Your task to perform on an android device: Open calendar and show me the third week of next month Image 0: 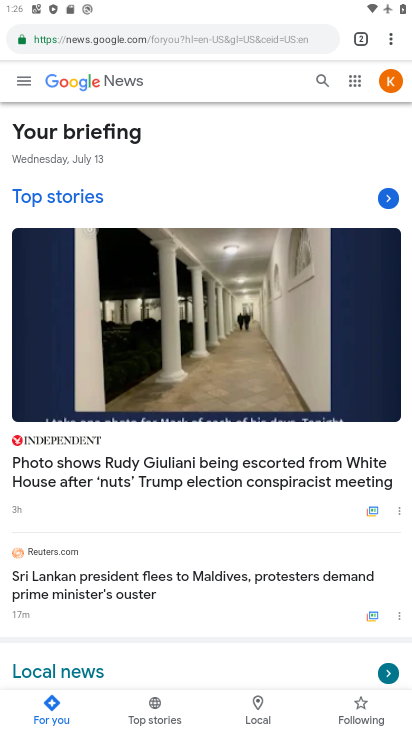
Step 0: press home button
Your task to perform on an android device: Open calendar and show me the third week of next month Image 1: 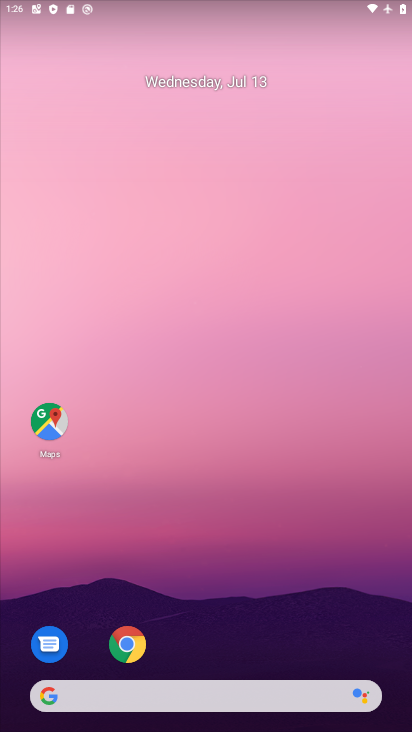
Step 1: drag from (256, 594) to (185, 56)
Your task to perform on an android device: Open calendar and show me the third week of next month Image 2: 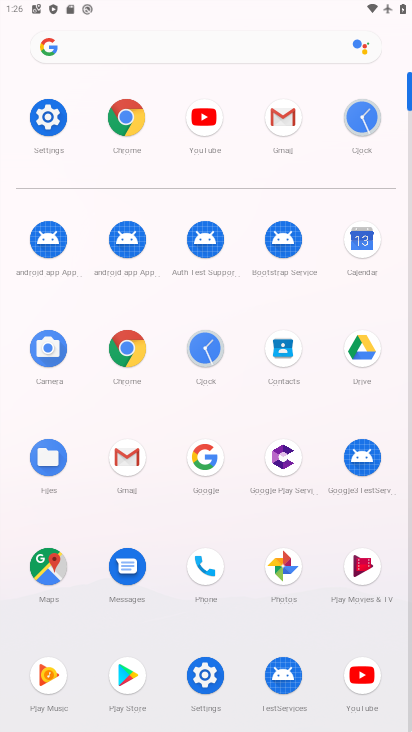
Step 2: click (372, 241)
Your task to perform on an android device: Open calendar and show me the third week of next month Image 3: 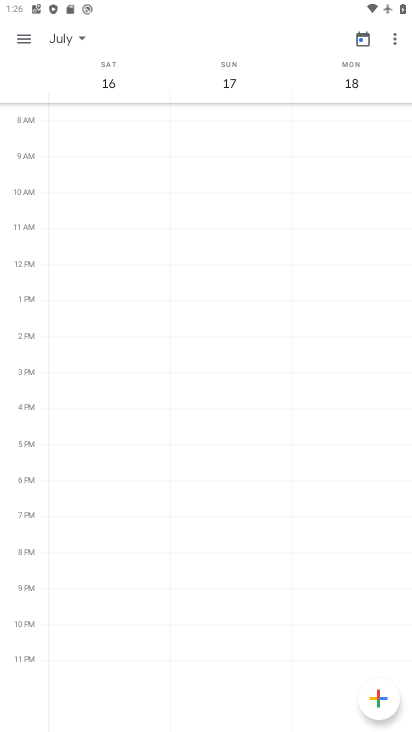
Step 3: click (58, 35)
Your task to perform on an android device: Open calendar and show me the third week of next month Image 4: 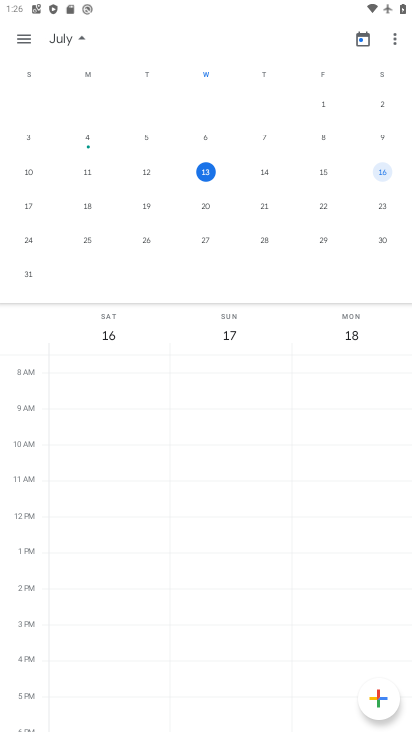
Step 4: drag from (337, 229) to (23, 176)
Your task to perform on an android device: Open calendar and show me the third week of next month Image 5: 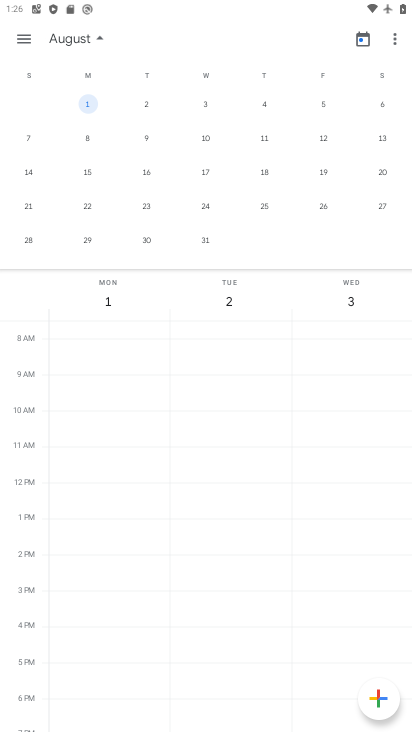
Step 5: click (150, 170)
Your task to perform on an android device: Open calendar and show me the third week of next month Image 6: 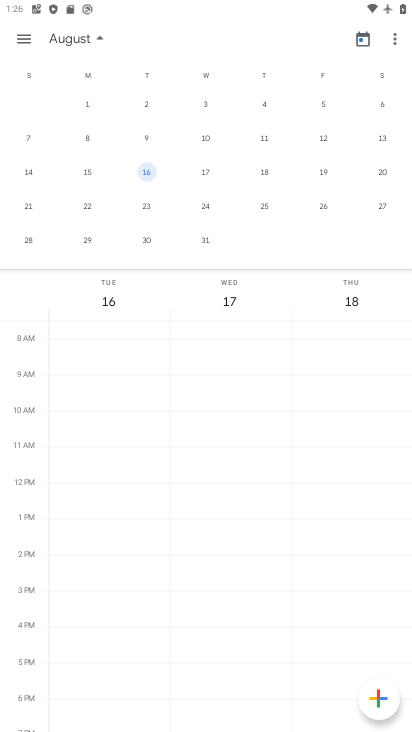
Step 6: click (22, 37)
Your task to perform on an android device: Open calendar and show me the third week of next month Image 7: 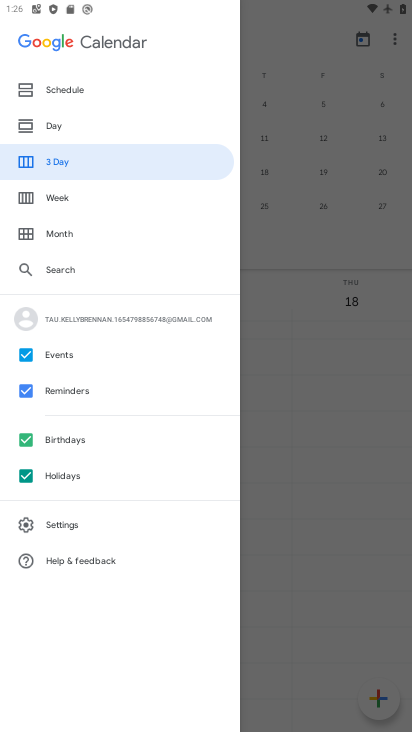
Step 7: click (61, 206)
Your task to perform on an android device: Open calendar and show me the third week of next month Image 8: 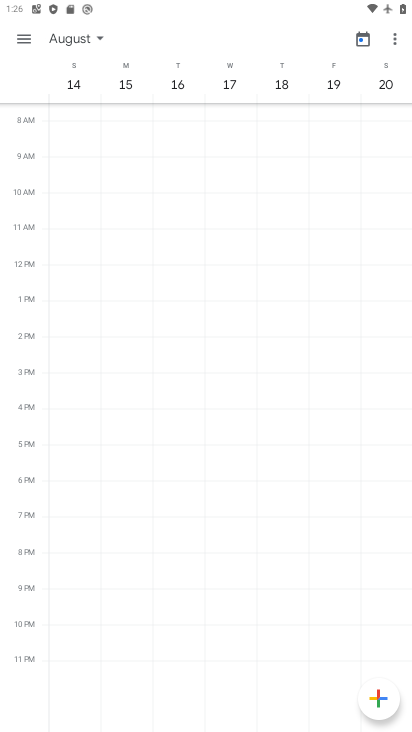
Step 8: task complete